Your task to perform on an android device: Show me the alarms in the clock app Image 0: 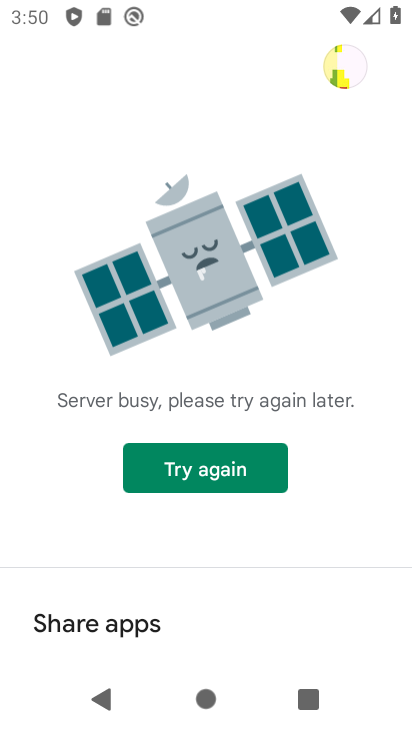
Step 0: press home button
Your task to perform on an android device: Show me the alarms in the clock app Image 1: 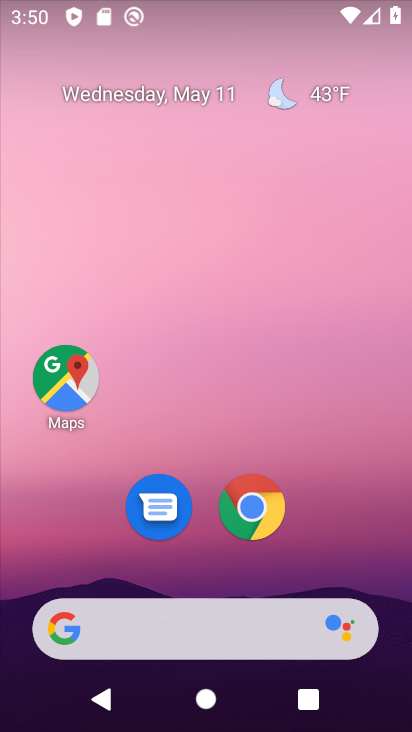
Step 1: drag from (397, 620) to (308, 140)
Your task to perform on an android device: Show me the alarms in the clock app Image 2: 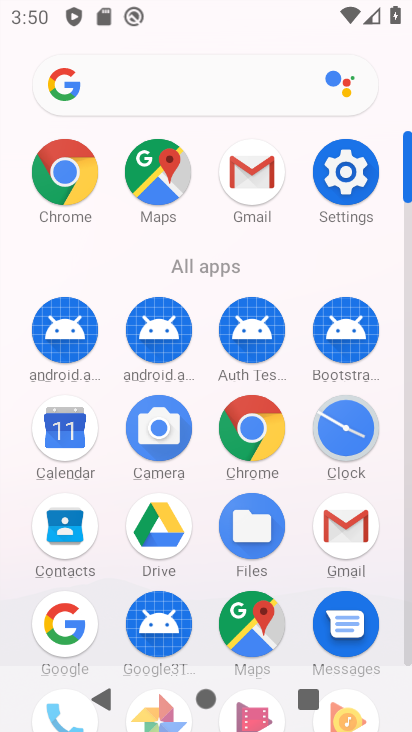
Step 2: click (408, 653)
Your task to perform on an android device: Show me the alarms in the clock app Image 3: 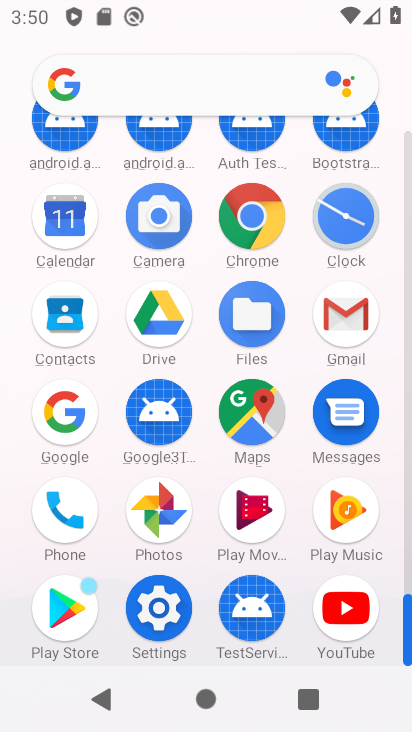
Step 3: click (342, 216)
Your task to perform on an android device: Show me the alarms in the clock app Image 4: 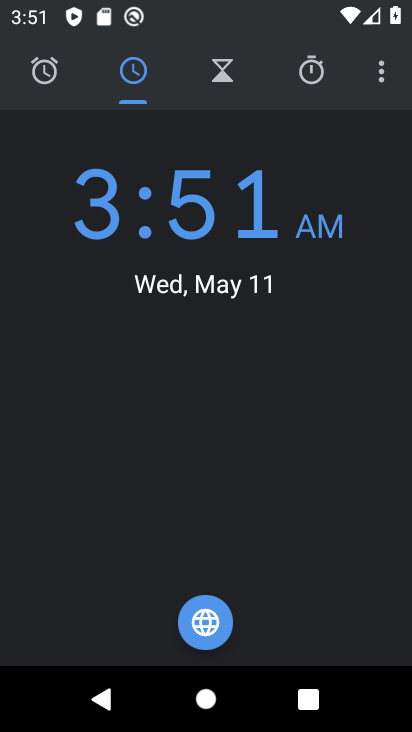
Step 4: click (40, 66)
Your task to perform on an android device: Show me the alarms in the clock app Image 5: 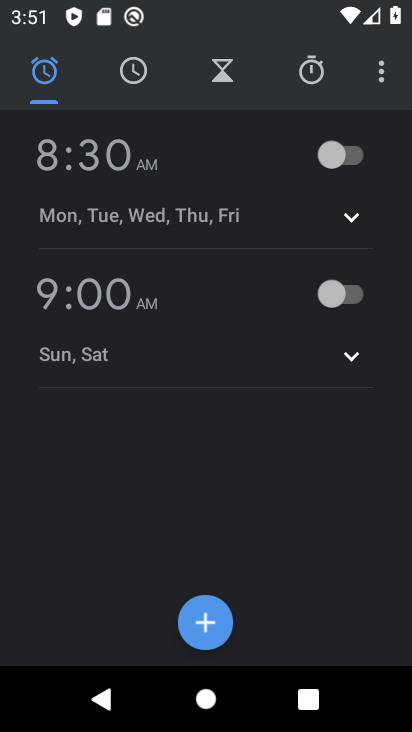
Step 5: click (53, 166)
Your task to perform on an android device: Show me the alarms in the clock app Image 6: 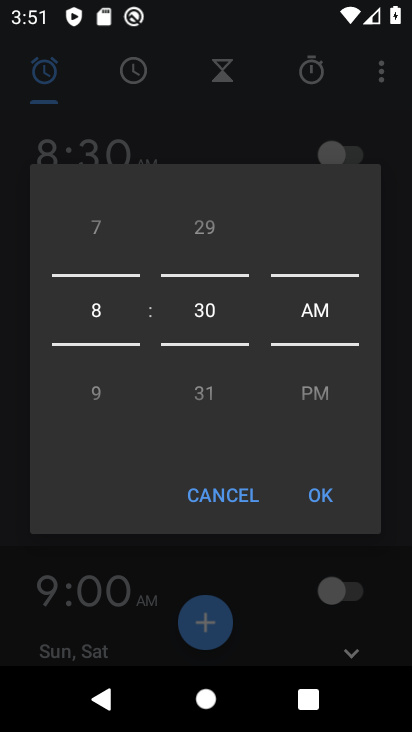
Step 6: drag from (87, 261) to (108, 424)
Your task to perform on an android device: Show me the alarms in the clock app Image 7: 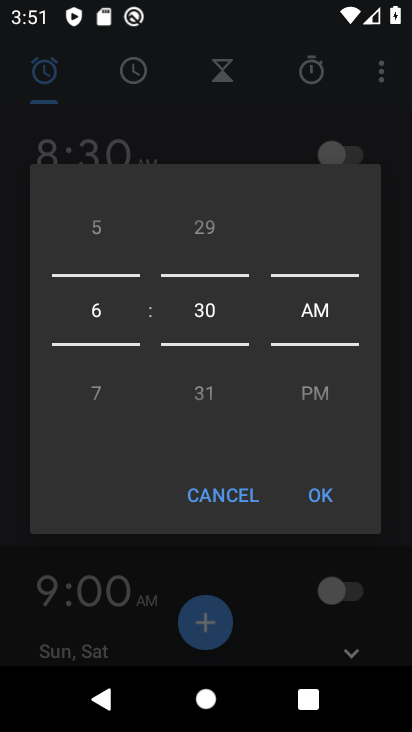
Step 7: click (322, 493)
Your task to perform on an android device: Show me the alarms in the clock app Image 8: 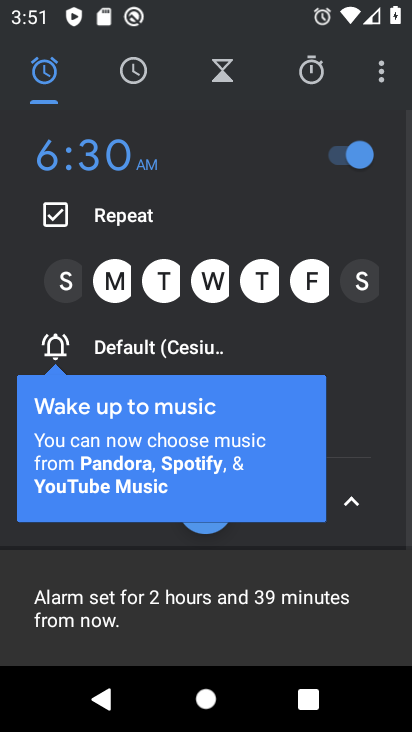
Step 8: click (360, 271)
Your task to perform on an android device: Show me the alarms in the clock app Image 9: 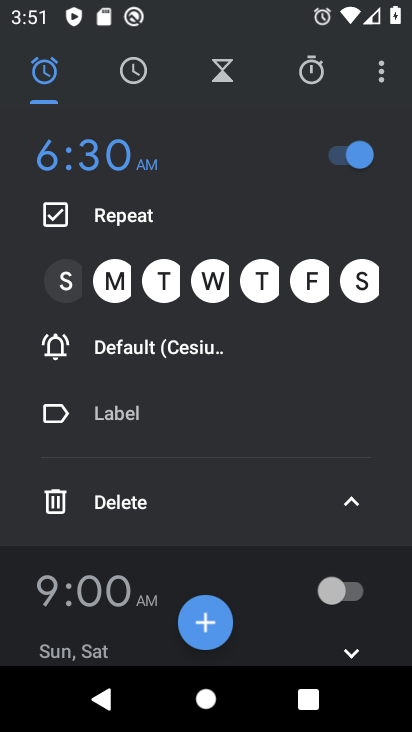
Step 9: click (353, 503)
Your task to perform on an android device: Show me the alarms in the clock app Image 10: 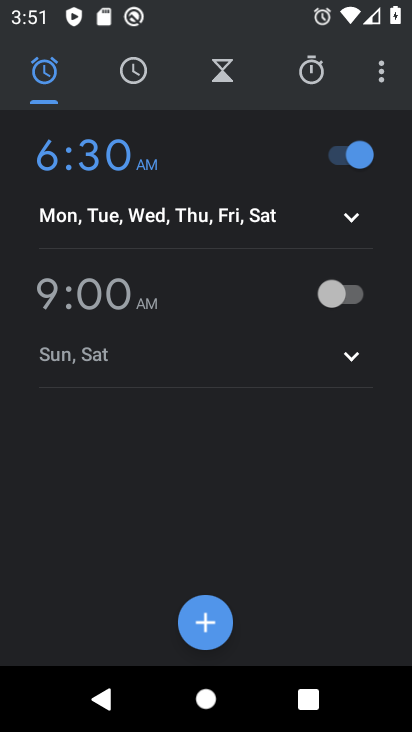
Step 10: task complete